Your task to perform on an android device: check storage Image 0: 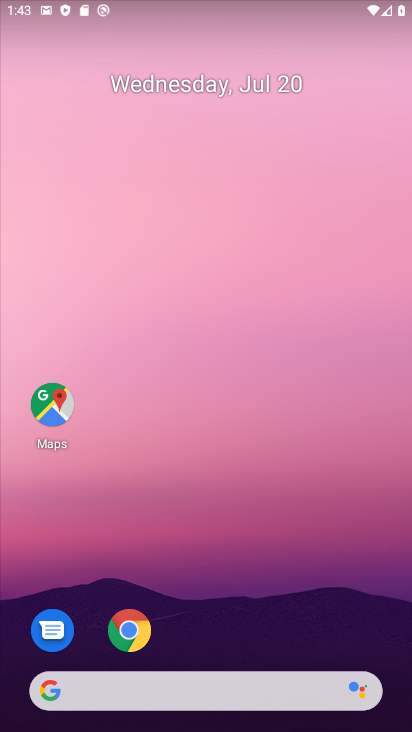
Step 0: drag from (207, 693) to (236, 197)
Your task to perform on an android device: check storage Image 1: 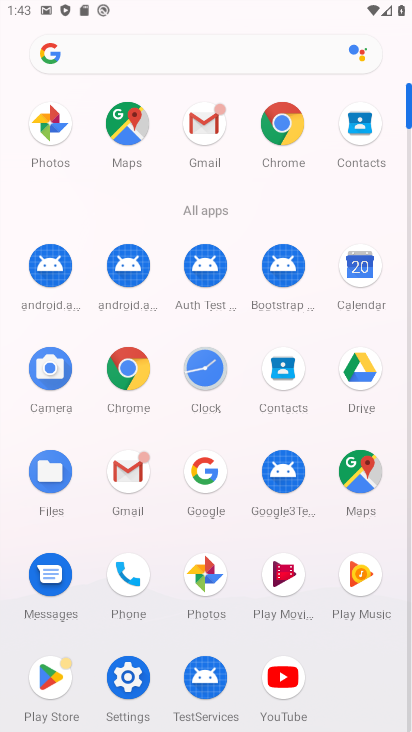
Step 1: click (128, 677)
Your task to perform on an android device: check storage Image 2: 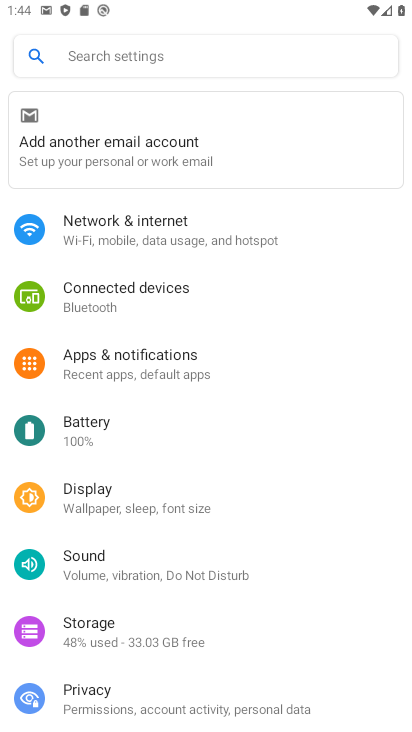
Step 2: click (97, 628)
Your task to perform on an android device: check storage Image 3: 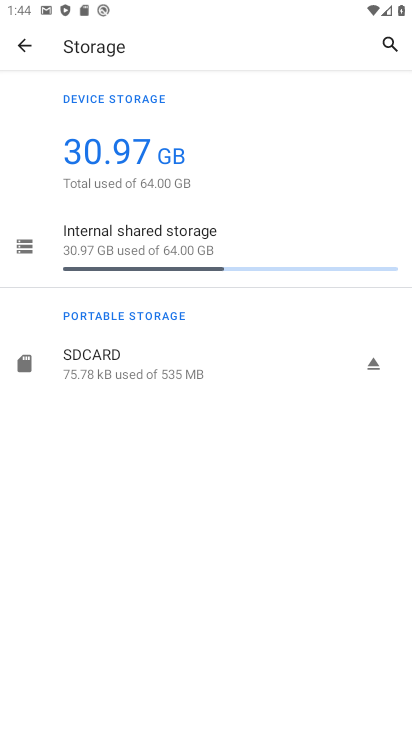
Step 3: task complete